Your task to perform on an android device: Search for seafood restaurants on Google Maps Image 0: 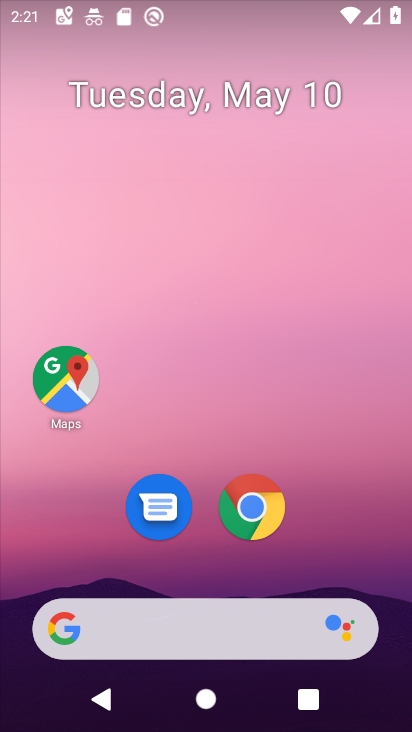
Step 0: click (62, 371)
Your task to perform on an android device: Search for seafood restaurants on Google Maps Image 1: 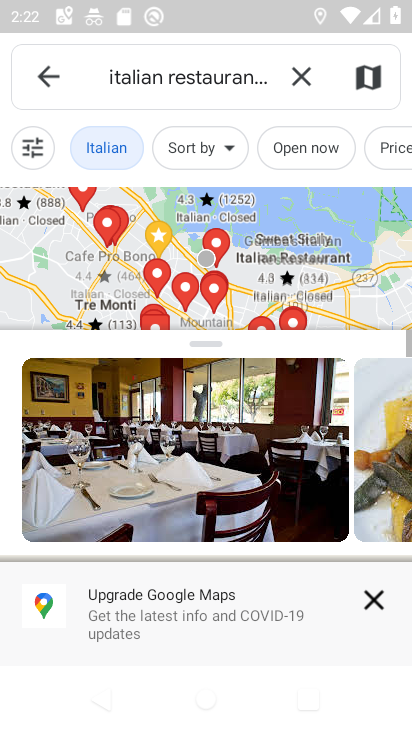
Step 1: click (298, 80)
Your task to perform on an android device: Search for seafood restaurants on Google Maps Image 2: 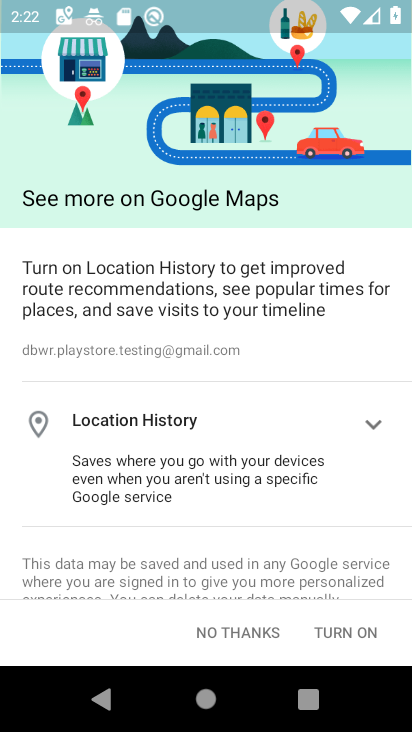
Step 2: click (334, 633)
Your task to perform on an android device: Search for seafood restaurants on Google Maps Image 3: 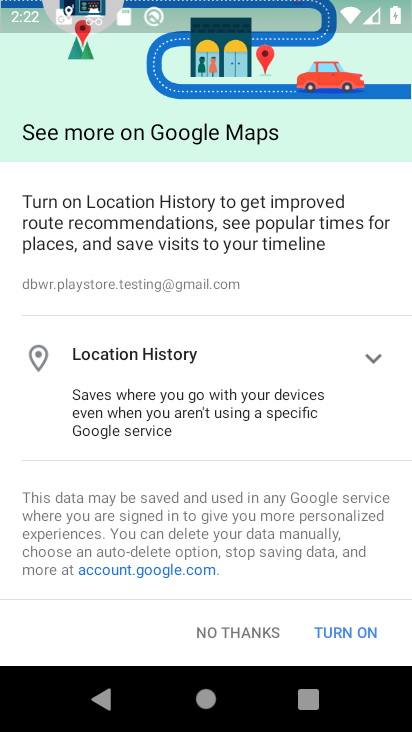
Step 3: click (337, 628)
Your task to perform on an android device: Search for seafood restaurants on Google Maps Image 4: 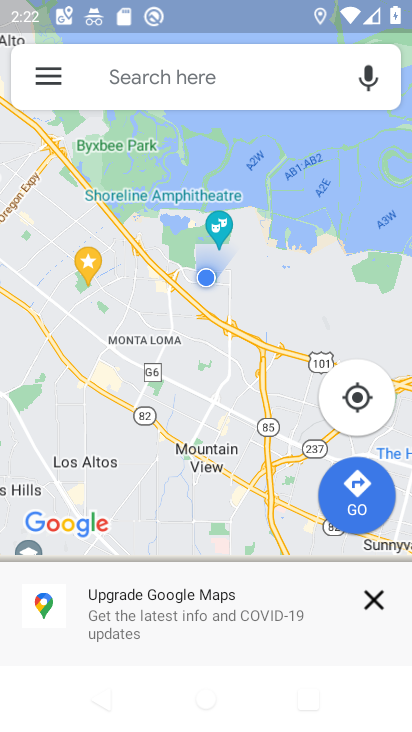
Step 4: click (142, 76)
Your task to perform on an android device: Search for seafood restaurants on Google Maps Image 5: 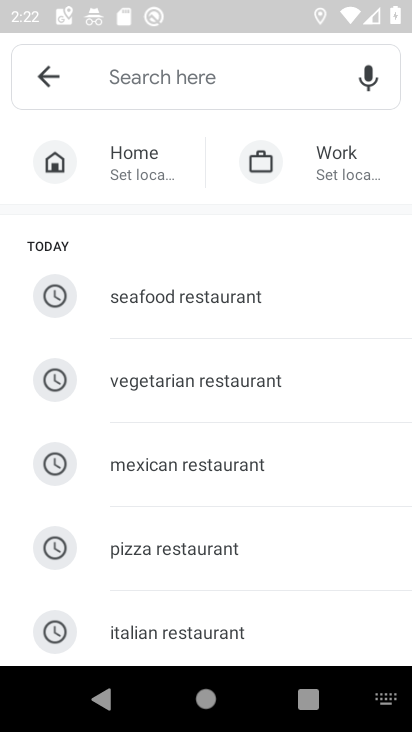
Step 5: type " seafood restaurants"
Your task to perform on an android device: Search for seafood restaurants on Google Maps Image 6: 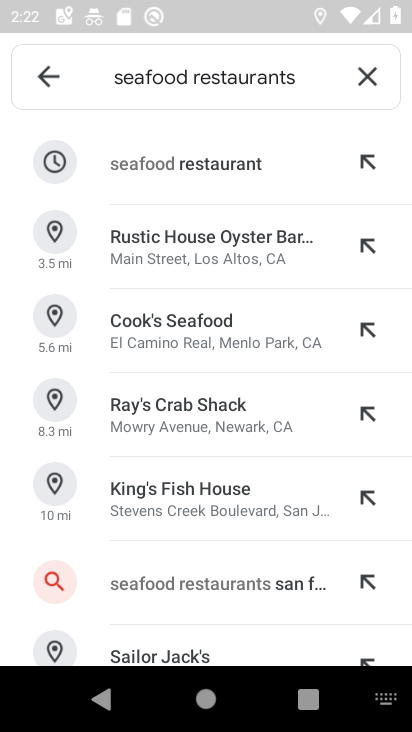
Step 6: click (153, 166)
Your task to perform on an android device: Search for seafood restaurants on Google Maps Image 7: 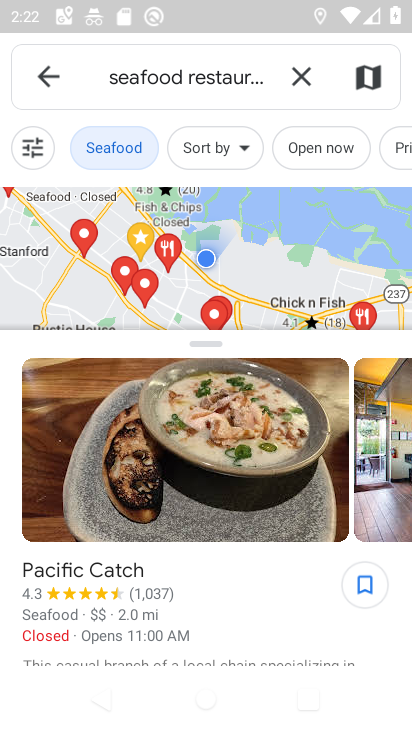
Step 7: task complete